Your task to perform on an android device: Open Google Chrome and click the shortcut for Amazon.com Image 0: 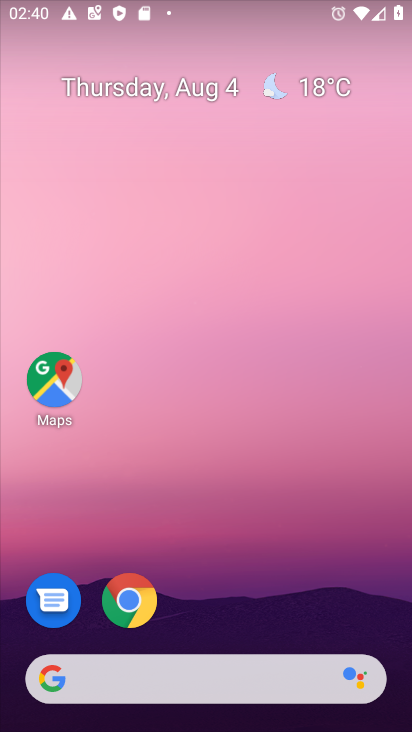
Step 0: click (125, 599)
Your task to perform on an android device: Open Google Chrome and click the shortcut for Amazon.com Image 1: 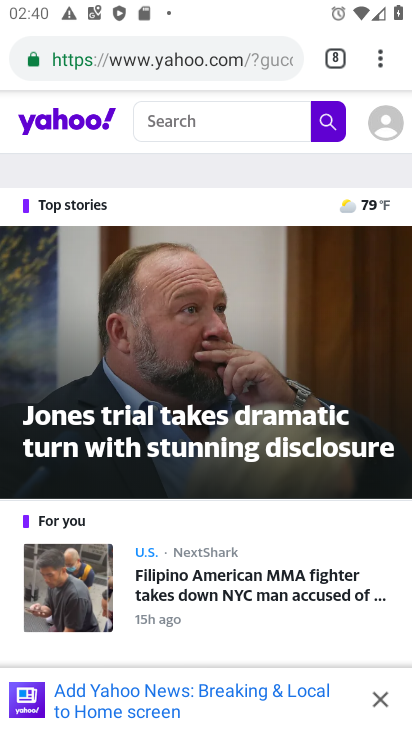
Step 1: drag from (381, 53) to (214, 190)
Your task to perform on an android device: Open Google Chrome and click the shortcut for Amazon.com Image 2: 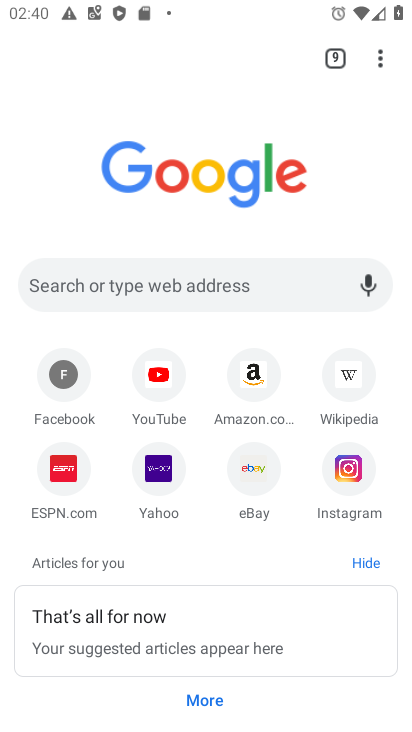
Step 2: click (254, 379)
Your task to perform on an android device: Open Google Chrome and click the shortcut for Amazon.com Image 3: 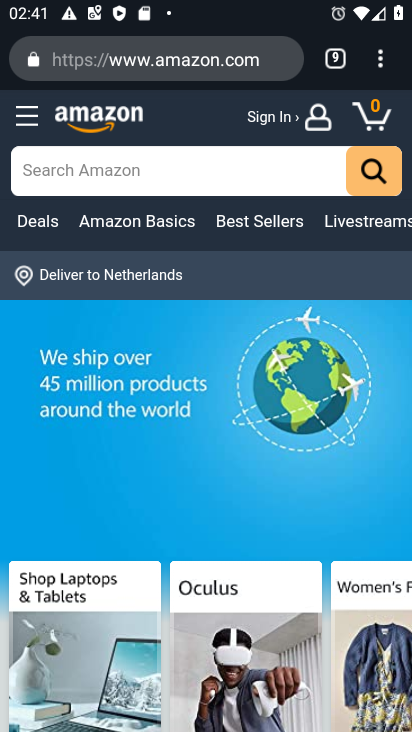
Step 3: task complete